Your task to perform on an android device: turn off location Image 0: 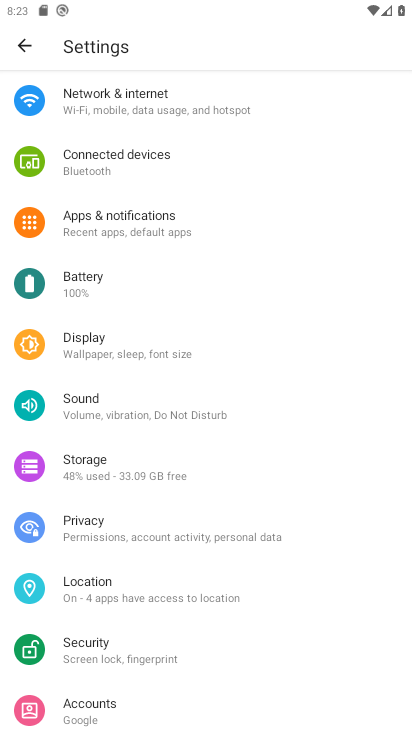
Step 0: click (134, 593)
Your task to perform on an android device: turn off location Image 1: 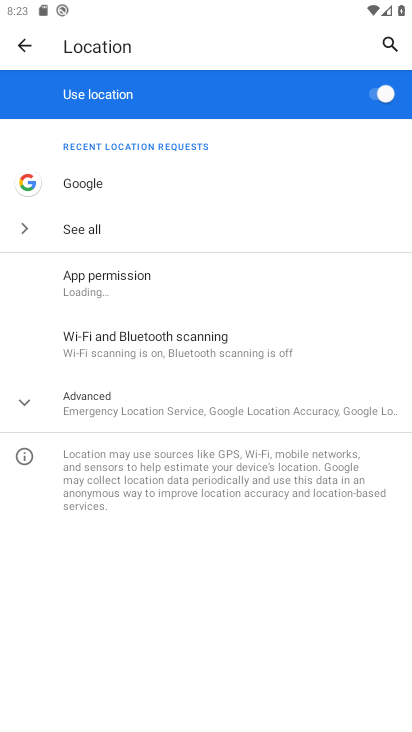
Step 1: click (371, 89)
Your task to perform on an android device: turn off location Image 2: 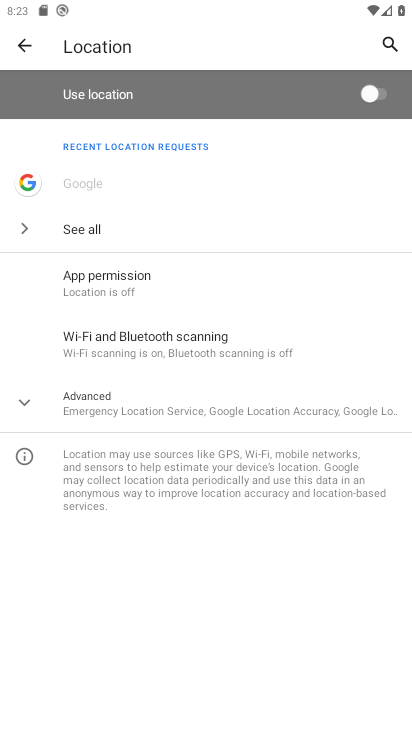
Step 2: task complete